Your task to perform on an android device: Show me popular videos on Youtube Image 0: 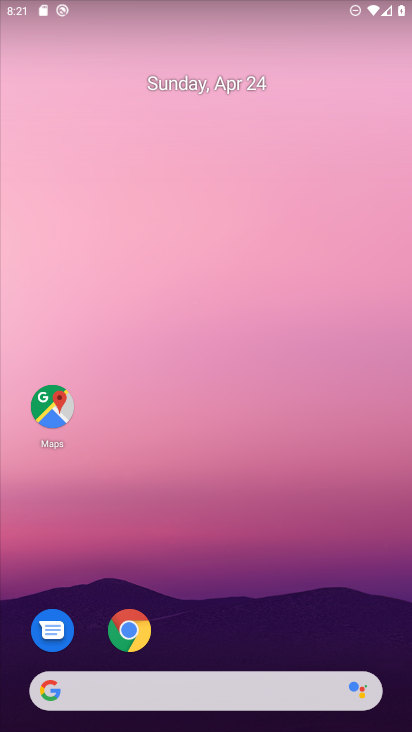
Step 0: drag from (237, 628) to (267, 136)
Your task to perform on an android device: Show me popular videos on Youtube Image 1: 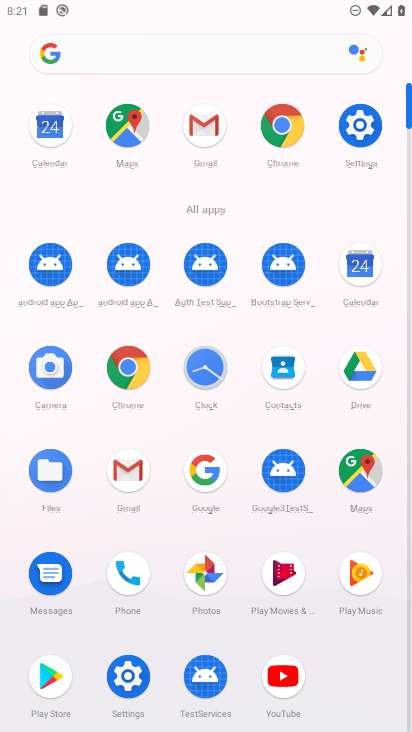
Step 1: click (291, 667)
Your task to perform on an android device: Show me popular videos on Youtube Image 2: 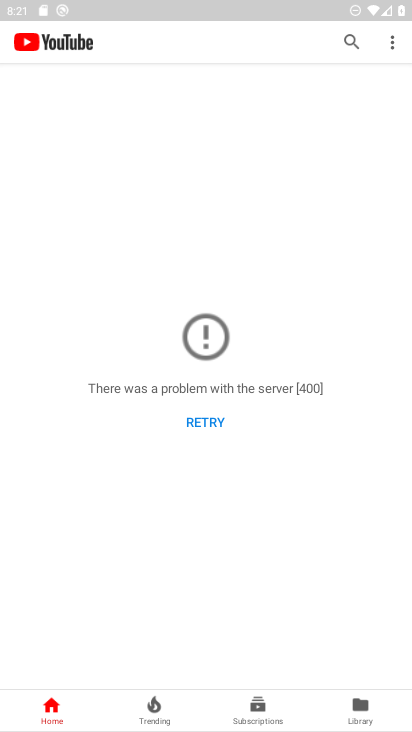
Step 2: task complete